Your task to perform on an android device: Is it going to rain today? Image 0: 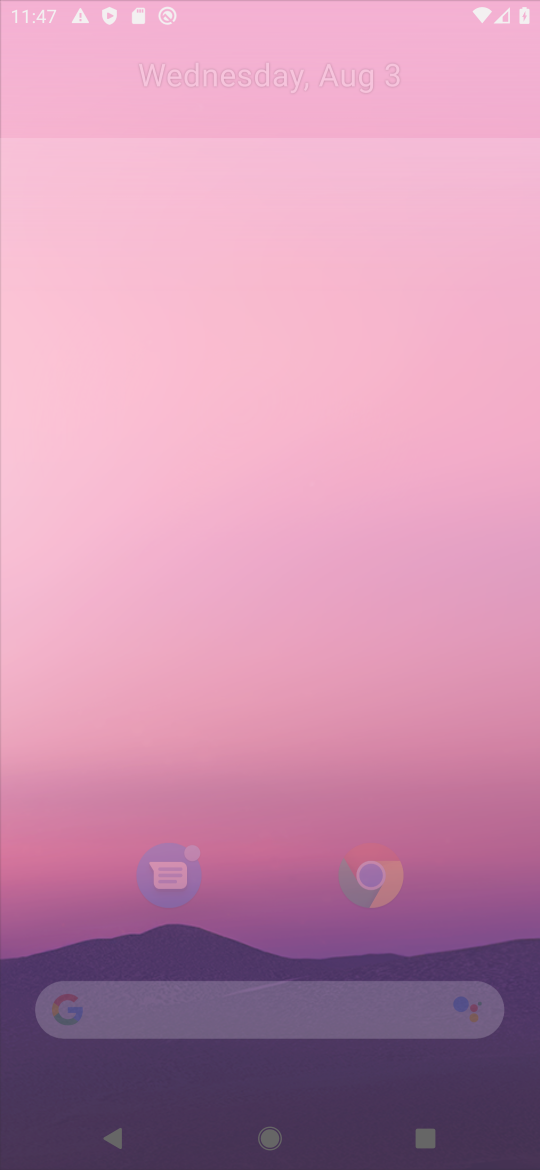
Step 0: press home button
Your task to perform on an android device: Is it going to rain today? Image 1: 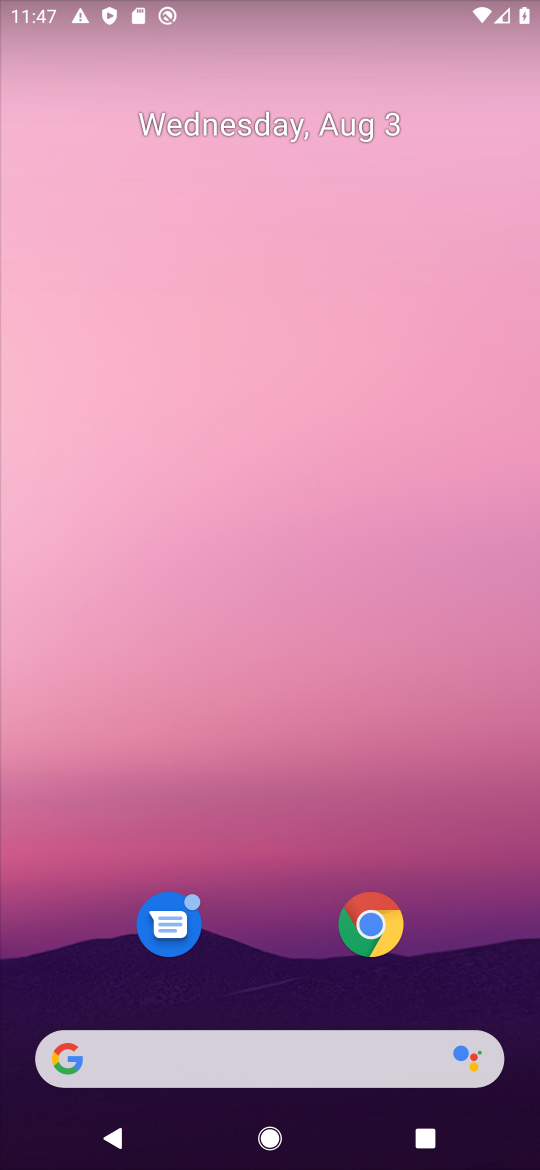
Step 1: click (385, 943)
Your task to perform on an android device: Is it going to rain today? Image 2: 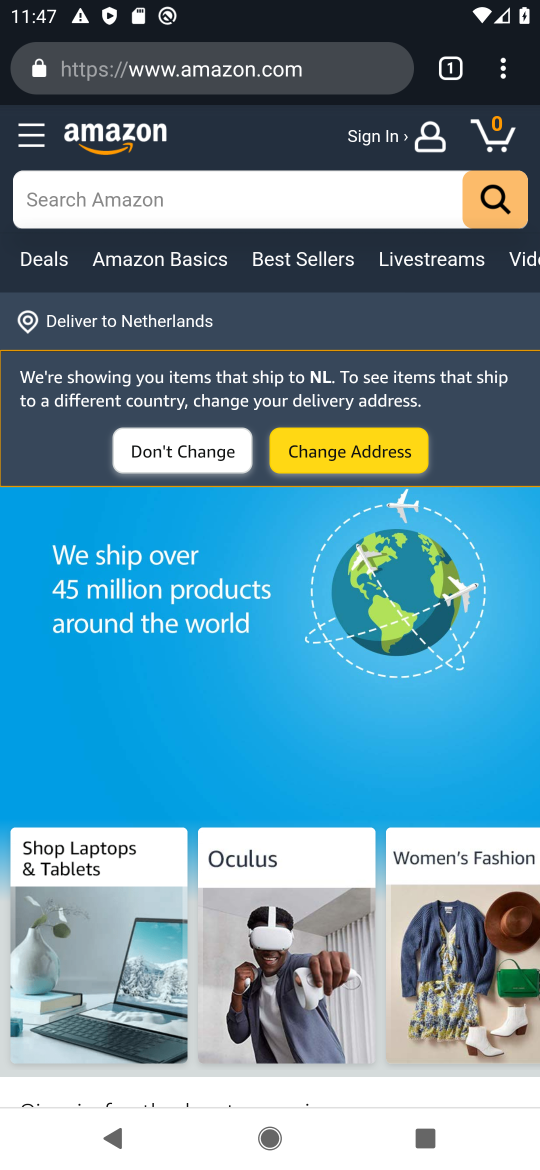
Step 2: click (288, 81)
Your task to perform on an android device: Is it going to rain today? Image 3: 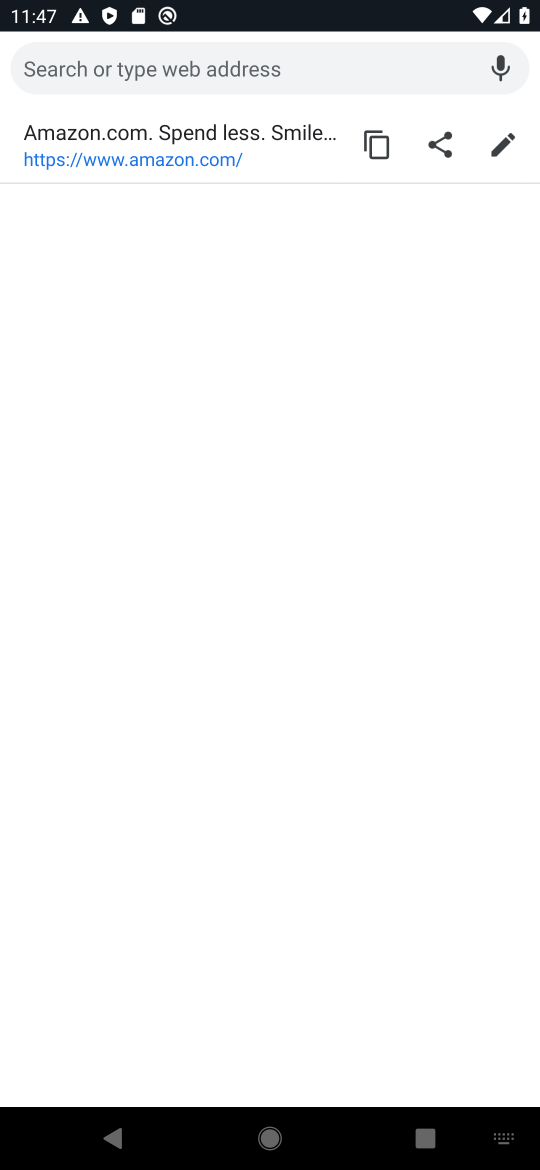
Step 3: type "Is it going to rain today?"
Your task to perform on an android device: Is it going to rain today? Image 4: 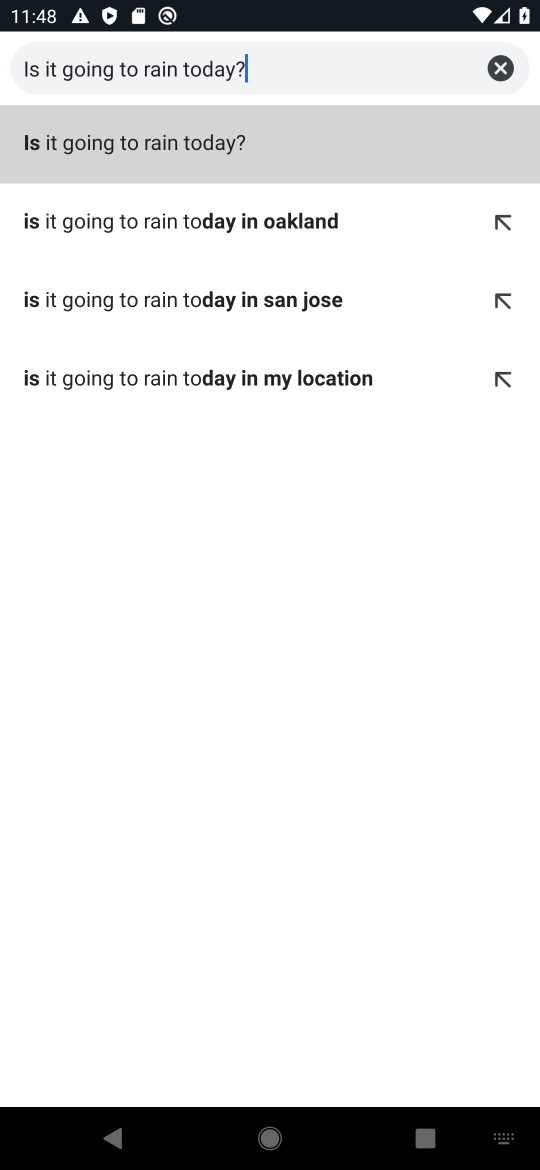
Step 4: click (200, 160)
Your task to perform on an android device: Is it going to rain today? Image 5: 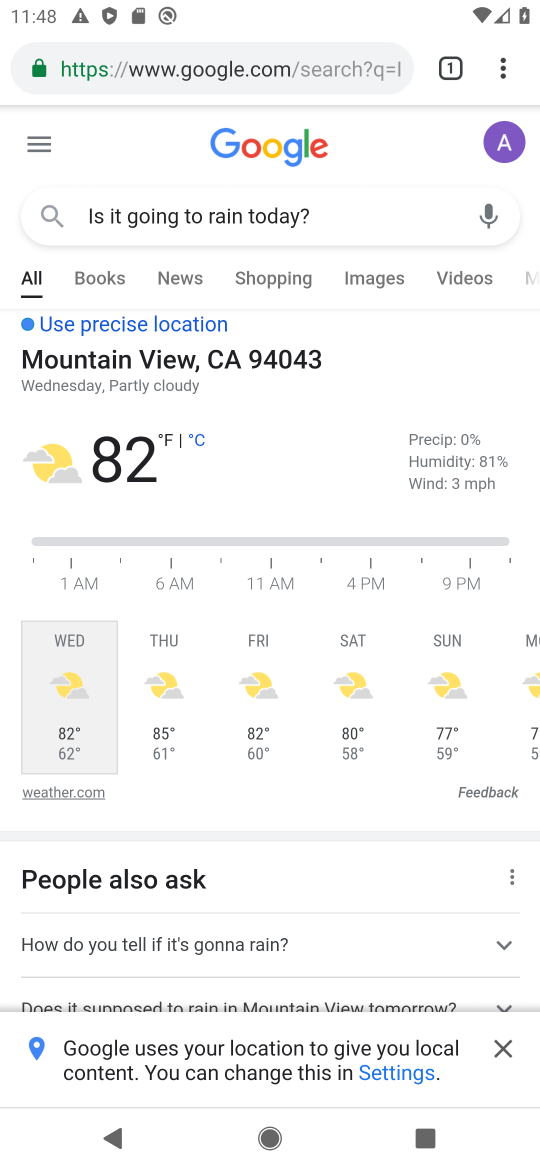
Step 5: task complete